Your task to perform on an android device: open chrome privacy settings Image 0: 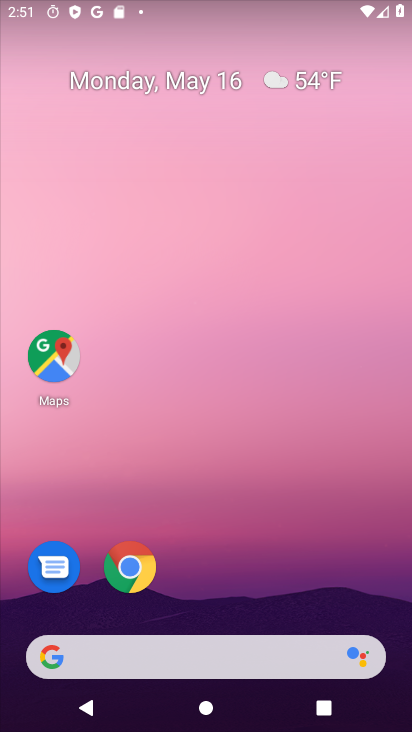
Step 0: click (131, 569)
Your task to perform on an android device: open chrome privacy settings Image 1: 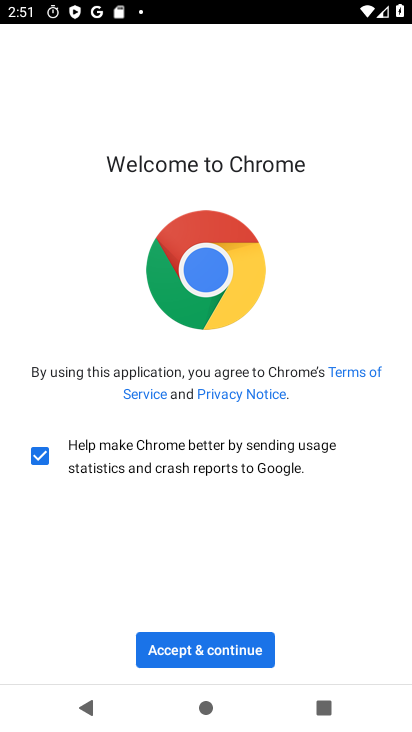
Step 1: click (208, 653)
Your task to perform on an android device: open chrome privacy settings Image 2: 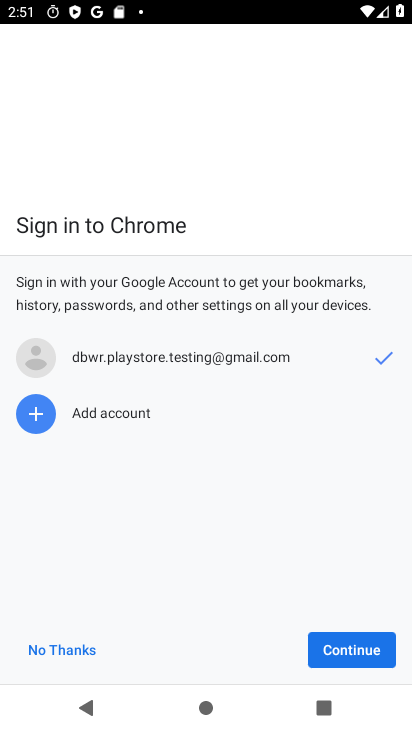
Step 2: click (349, 651)
Your task to perform on an android device: open chrome privacy settings Image 3: 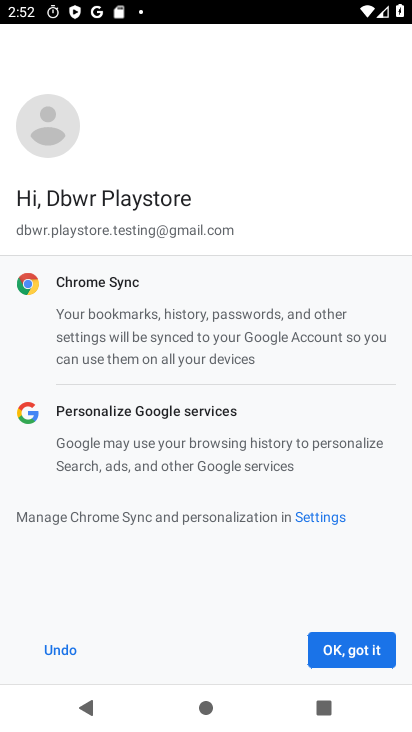
Step 3: click (349, 651)
Your task to perform on an android device: open chrome privacy settings Image 4: 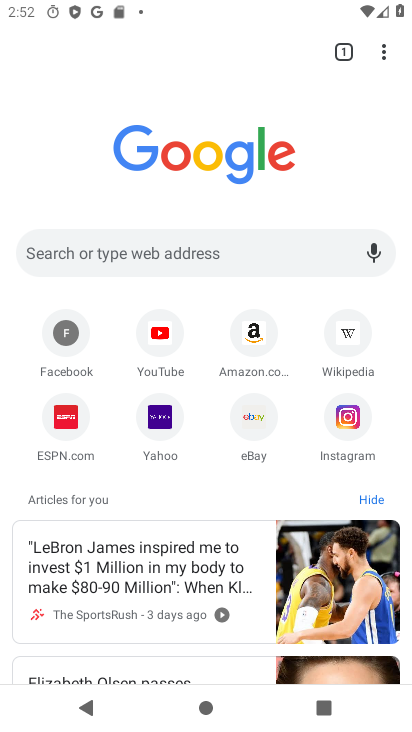
Step 4: click (385, 48)
Your task to perform on an android device: open chrome privacy settings Image 5: 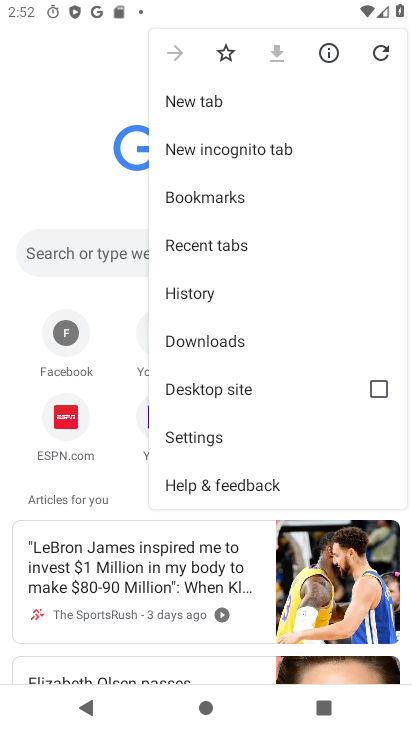
Step 5: click (203, 438)
Your task to perform on an android device: open chrome privacy settings Image 6: 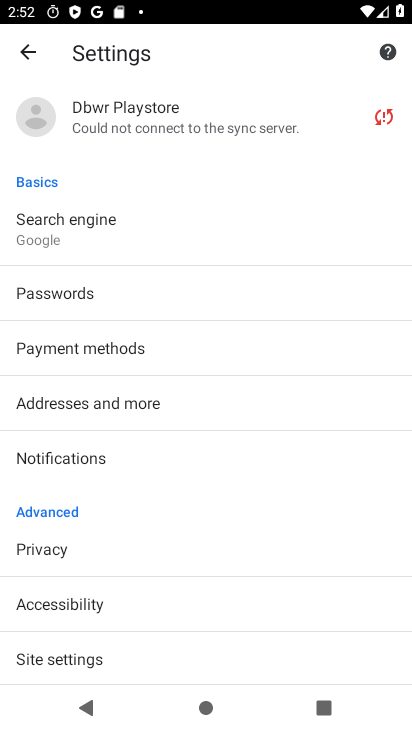
Step 6: click (55, 559)
Your task to perform on an android device: open chrome privacy settings Image 7: 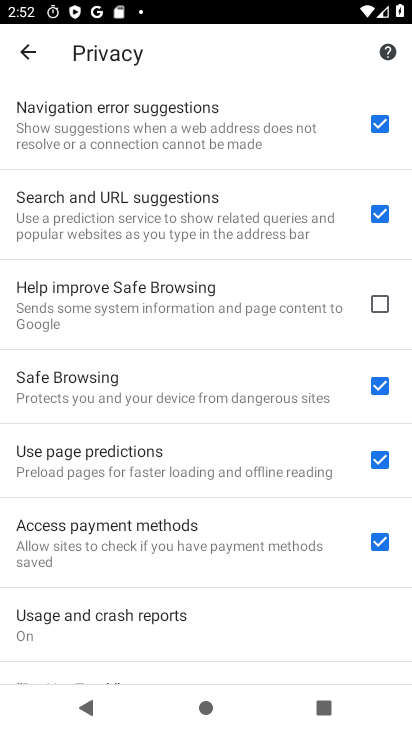
Step 7: task complete